Your task to perform on an android device: toggle notification dots Image 0: 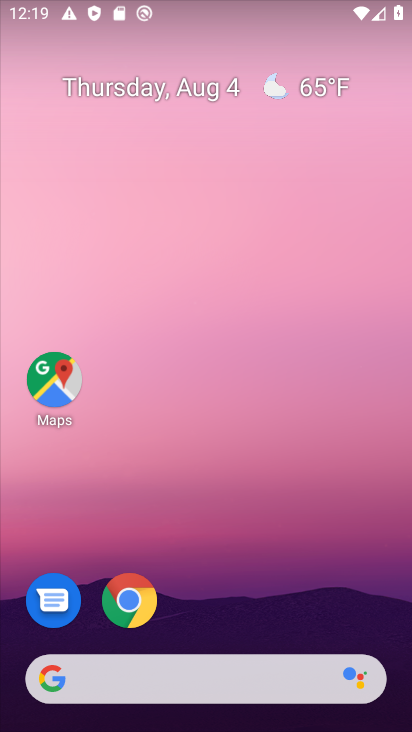
Step 0: drag from (217, 536) to (118, 112)
Your task to perform on an android device: toggle notification dots Image 1: 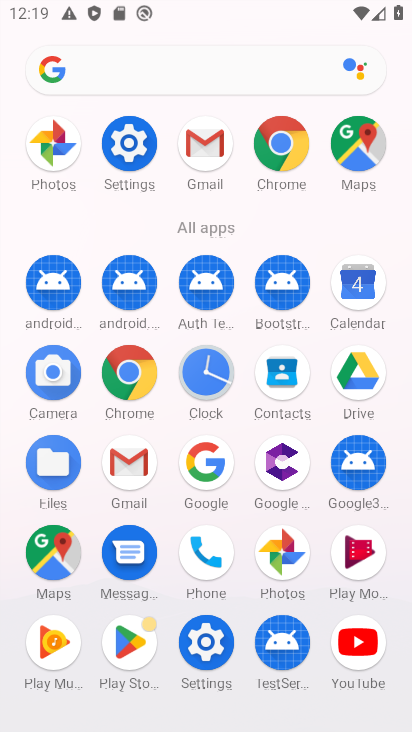
Step 1: click (136, 136)
Your task to perform on an android device: toggle notification dots Image 2: 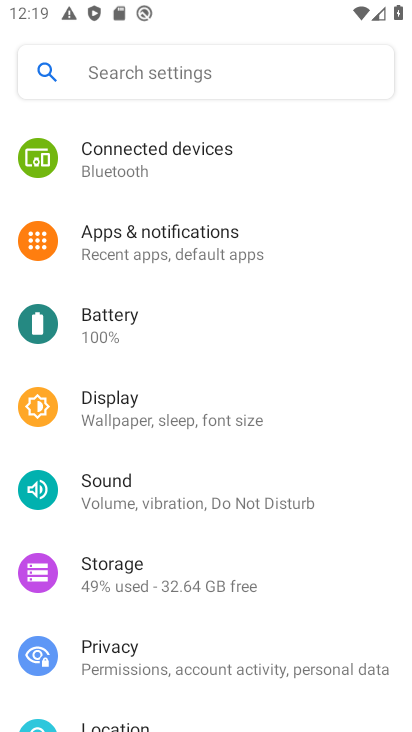
Step 2: click (181, 223)
Your task to perform on an android device: toggle notification dots Image 3: 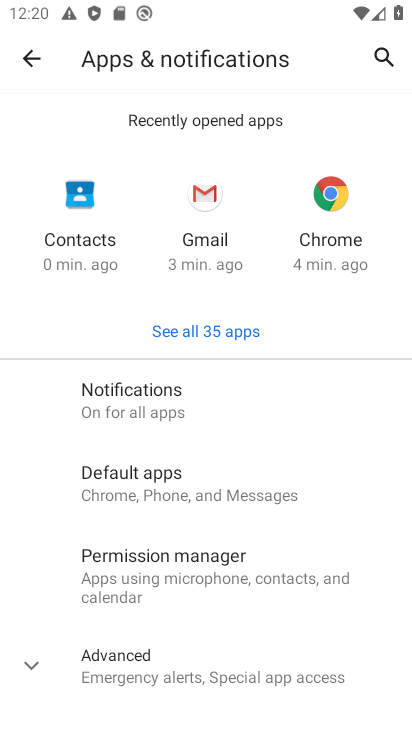
Step 3: click (162, 406)
Your task to perform on an android device: toggle notification dots Image 4: 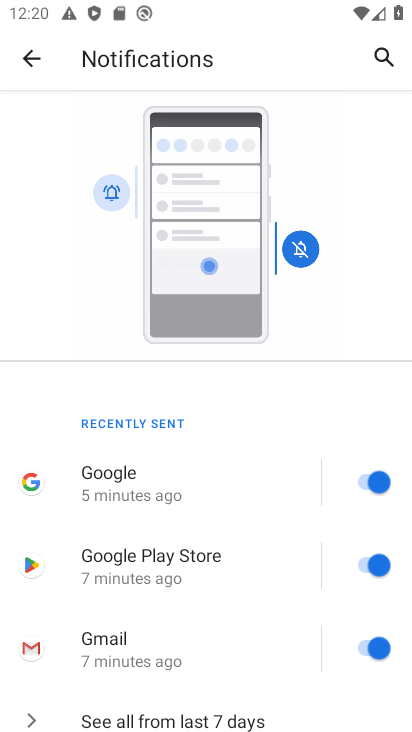
Step 4: drag from (235, 599) to (70, 19)
Your task to perform on an android device: toggle notification dots Image 5: 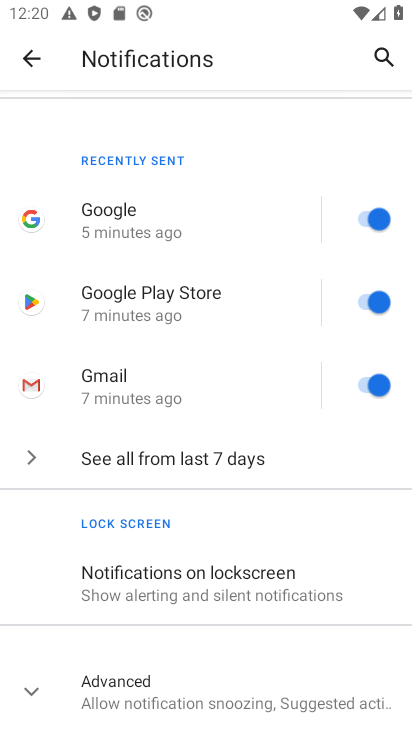
Step 5: click (165, 682)
Your task to perform on an android device: toggle notification dots Image 6: 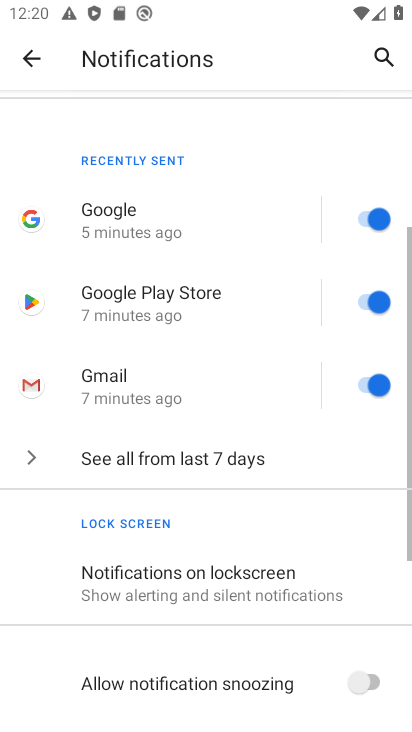
Step 6: drag from (165, 682) to (125, 169)
Your task to perform on an android device: toggle notification dots Image 7: 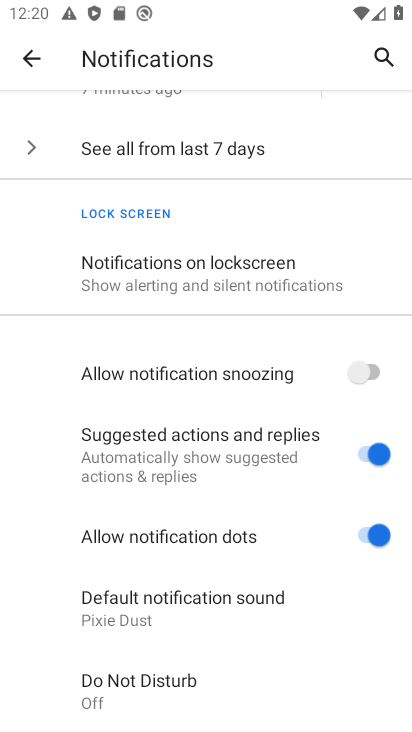
Step 7: click (370, 540)
Your task to perform on an android device: toggle notification dots Image 8: 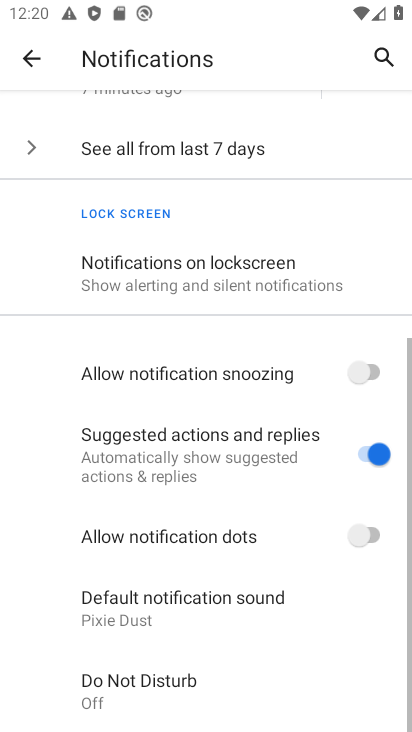
Step 8: task complete